Your task to perform on an android device: change the clock display to analog Image 0: 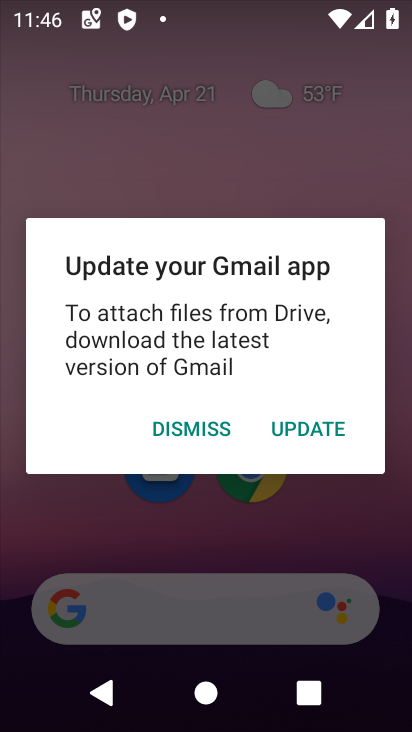
Step 0: click (184, 421)
Your task to perform on an android device: change the clock display to analog Image 1: 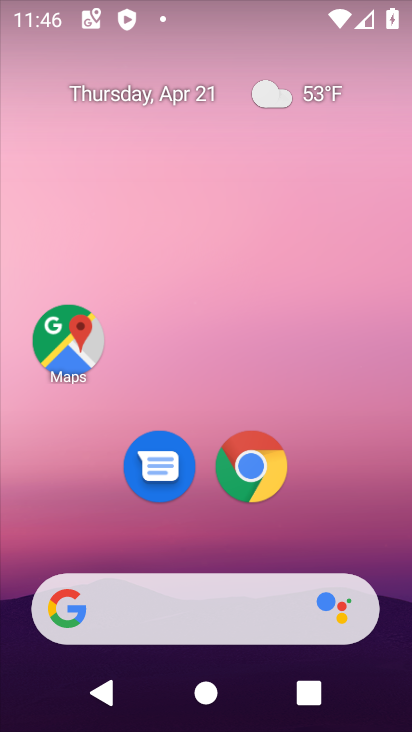
Step 1: drag from (352, 472) to (7, 407)
Your task to perform on an android device: change the clock display to analog Image 2: 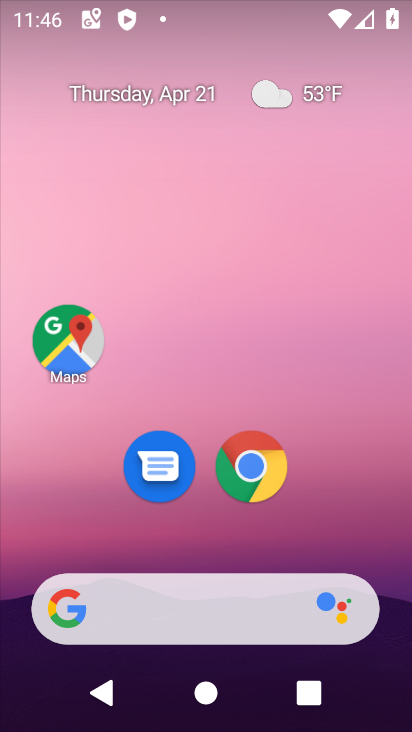
Step 2: drag from (387, 717) to (323, 147)
Your task to perform on an android device: change the clock display to analog Image 3: 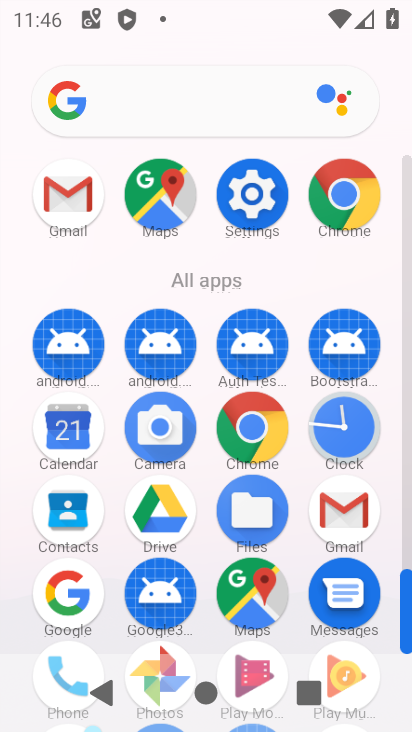
Step 3: click (349, 426)
Your task to perform on an android device: change the clock display to analog Image 4: 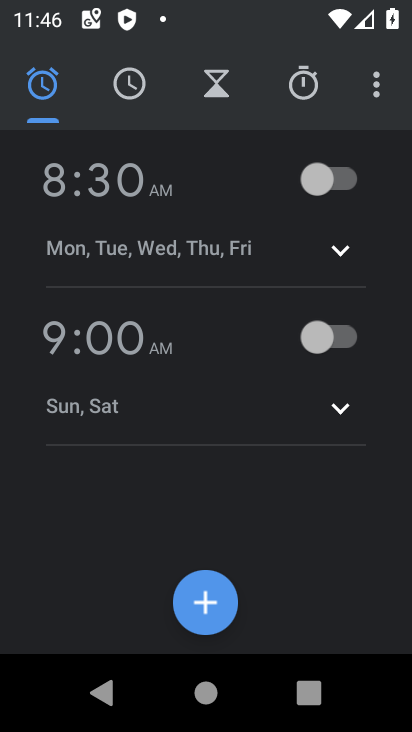
Step 4: click (382, 87)
Your task to perform on an android device: change the clock display to analog Image 5: 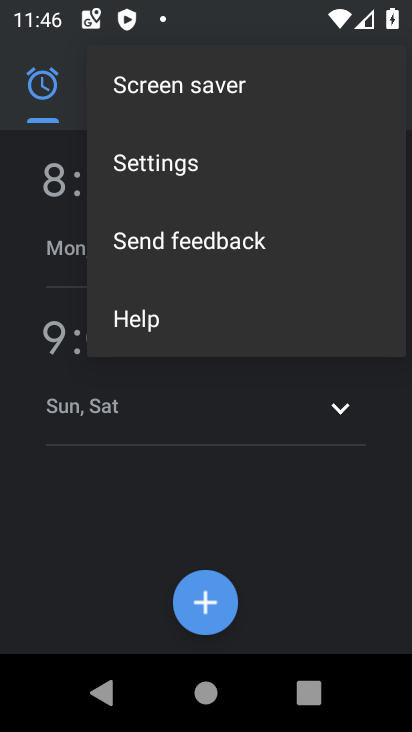
Step 5: click (183, 167)
Your task to perform on an android device: change the clock display to analog Image 6: 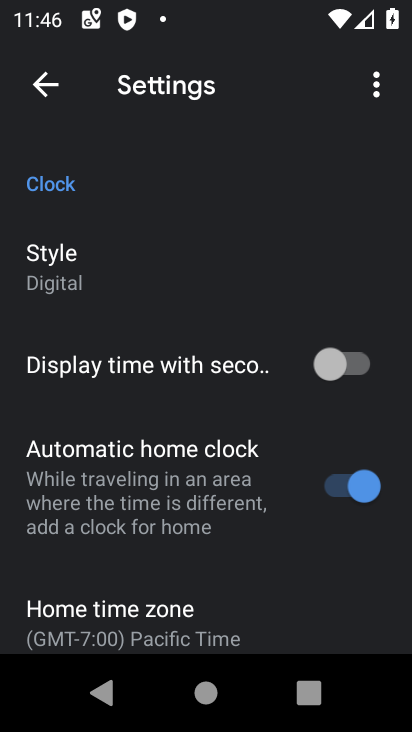
Step 6: click (136, 256)
Your task to perform on an android device: change the clock display to analog Image 7: 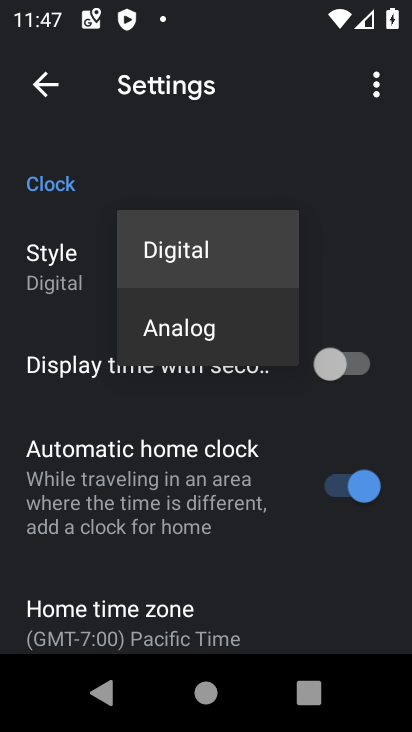
Step 7: click (156, 338)
Your task to perform on an android device: change the clock display to analog Image 8: 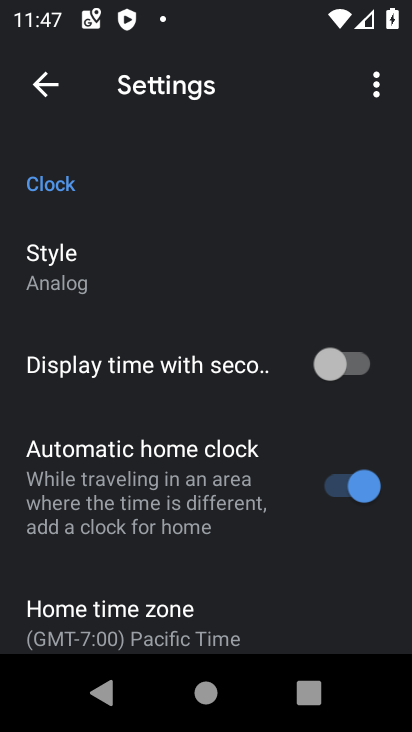
Step 8: task complete